Your task to perform on an android device: Open Google Maps Image 0: 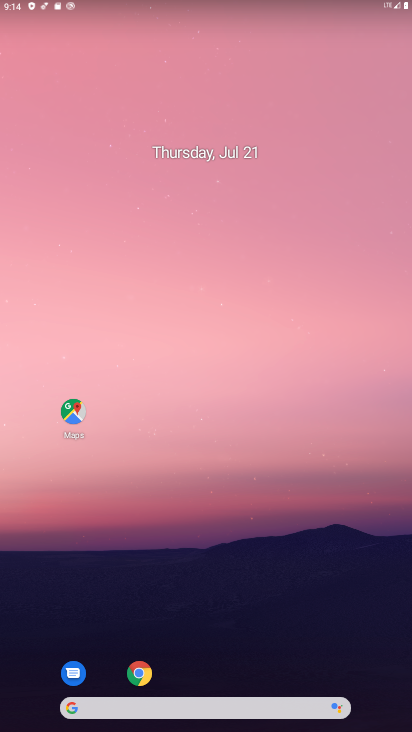
Step 0: click (77, 427)
Your task to perform on an android device: Open Google Maps Image 1: 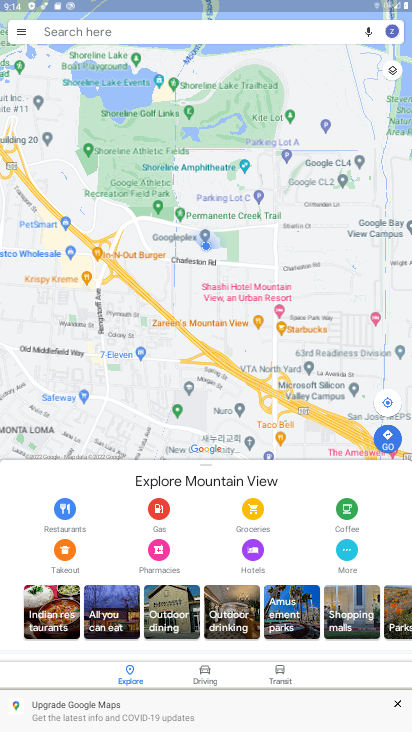
Step 1: task complete